Your task to perform on an android device: Open wifi settings Image 0: 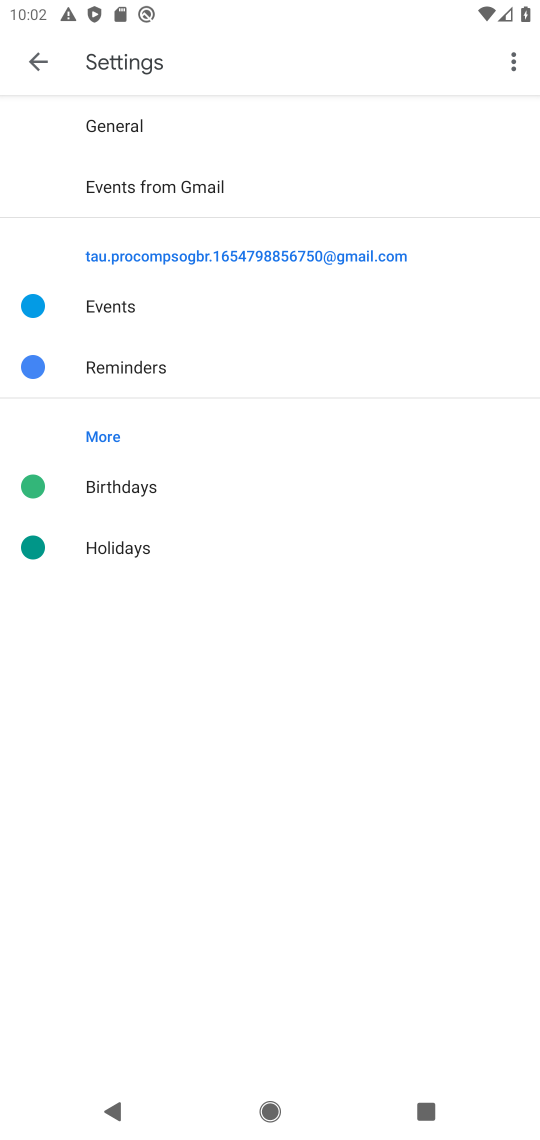
Step 0: press home button
Your task to perform on an android device: Open wifi settings Image 1: 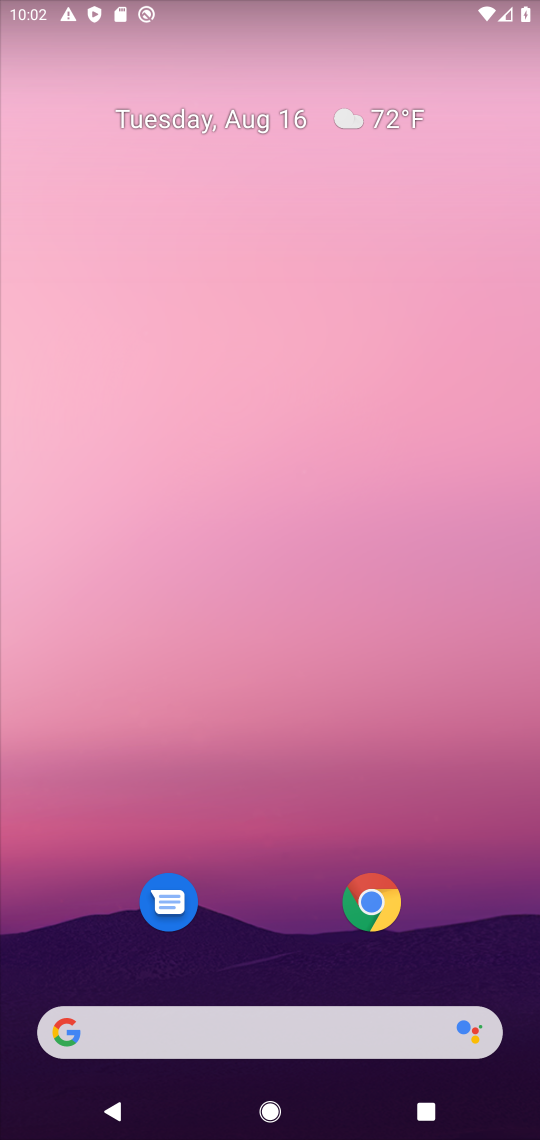
Step 1: drag from (171, 987) to (308, 685)
Your task to perform on an android device: Open wifi settings Image 2: 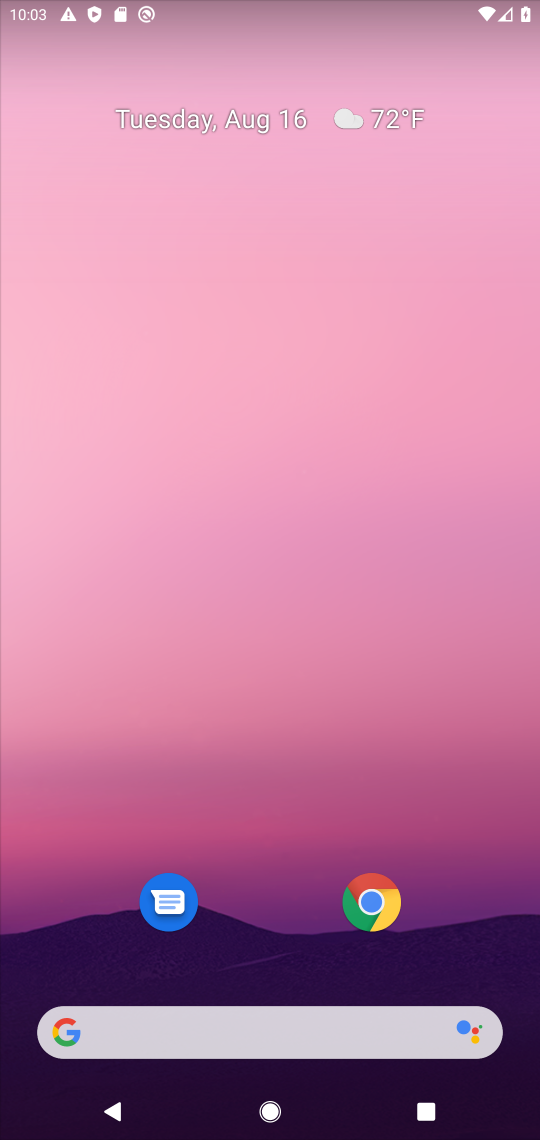
Step 2: drag from (309, 968) to (318, 142)
Your task to perform on an android device: Open wifi settings Image 3: 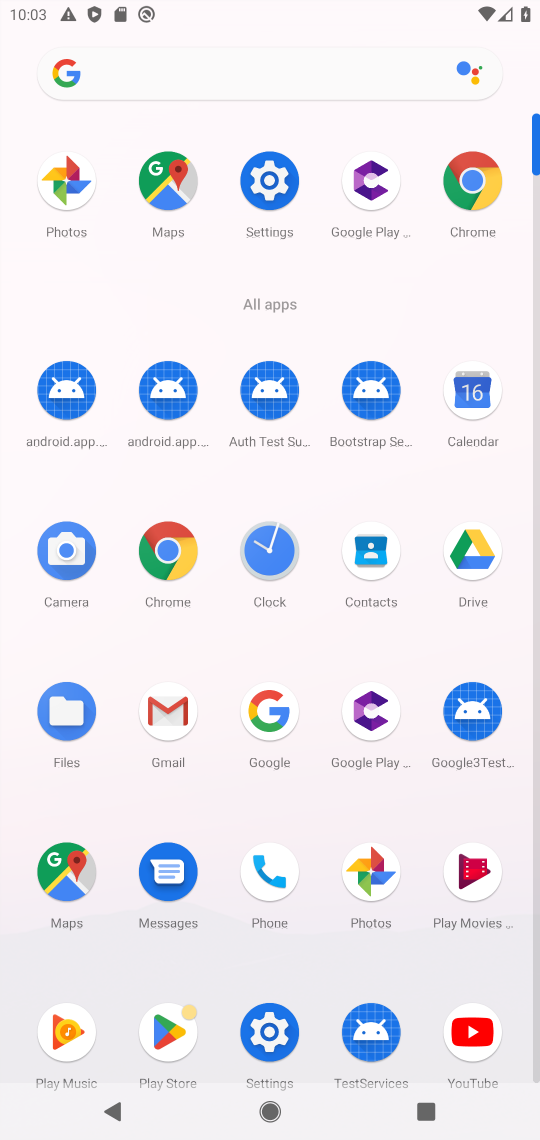
Step 3: click (255, 166)
Your task to perform on an android device: Open wifi settings Image 4: 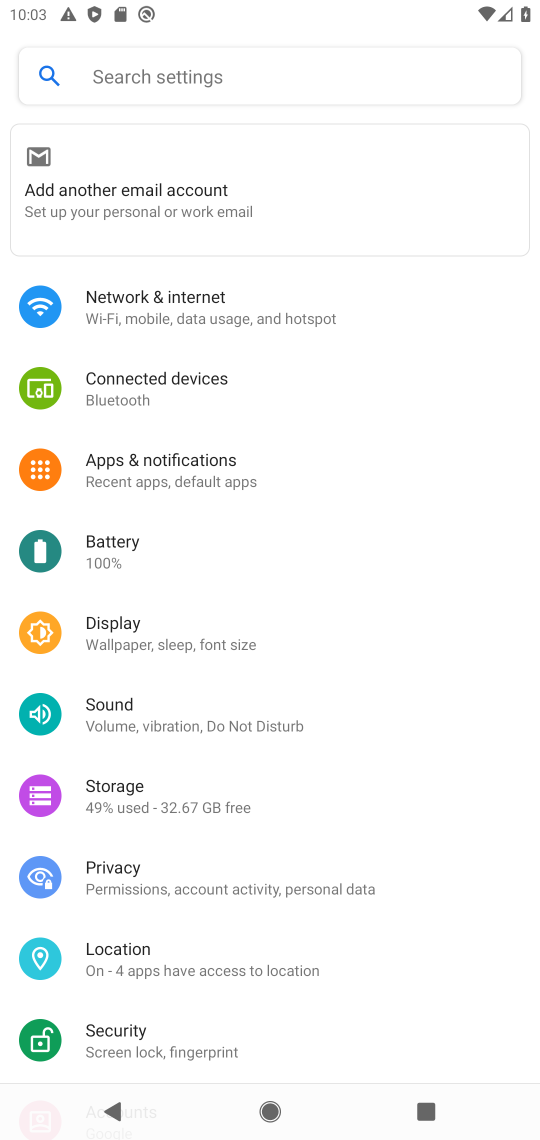
Step 4: click (136, 311)
Your task to perform on an android device: Open wifi settings Image 5: 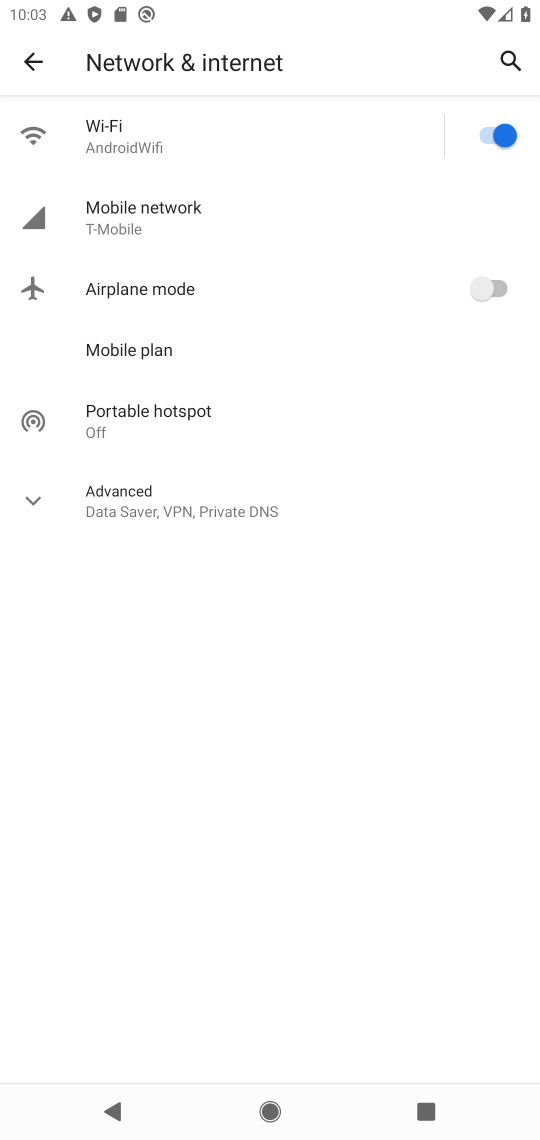
Step 5: click (88, 112)
Your task to perform on an android device: Open wifi settings Image 6: 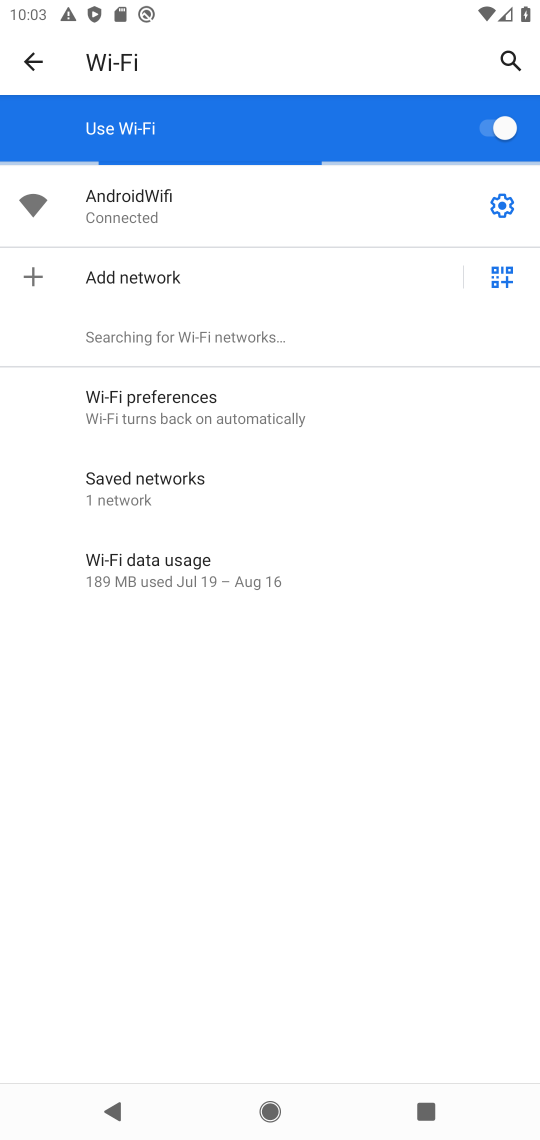
Step 6: click (496, 202)
Your task to perform on an android device: Open wifi settings Image 7: 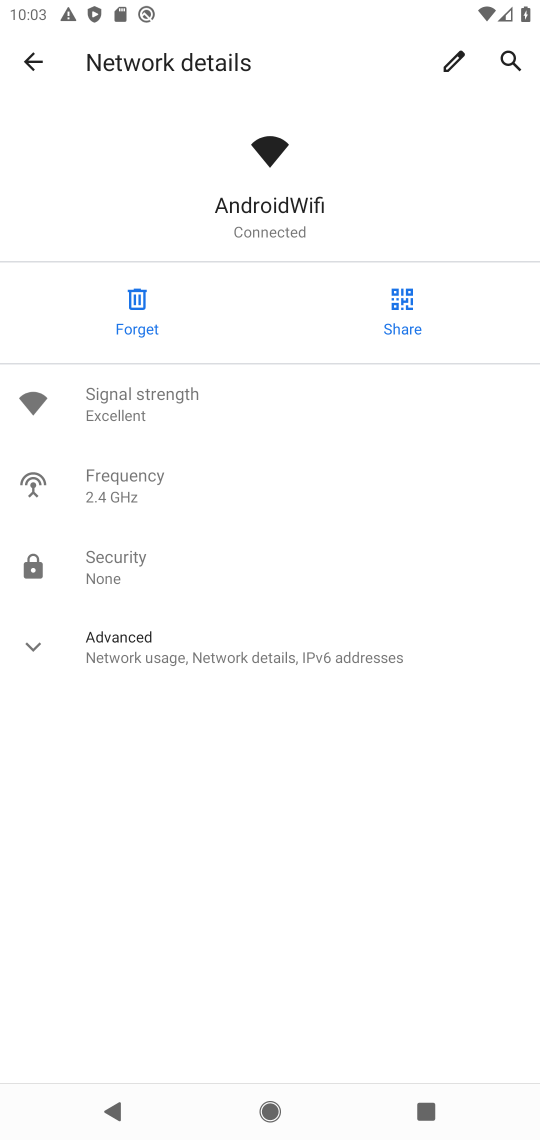
Step 7: click (123, 646)
Your task to perform on an android device: Open wifi settings Image 8: 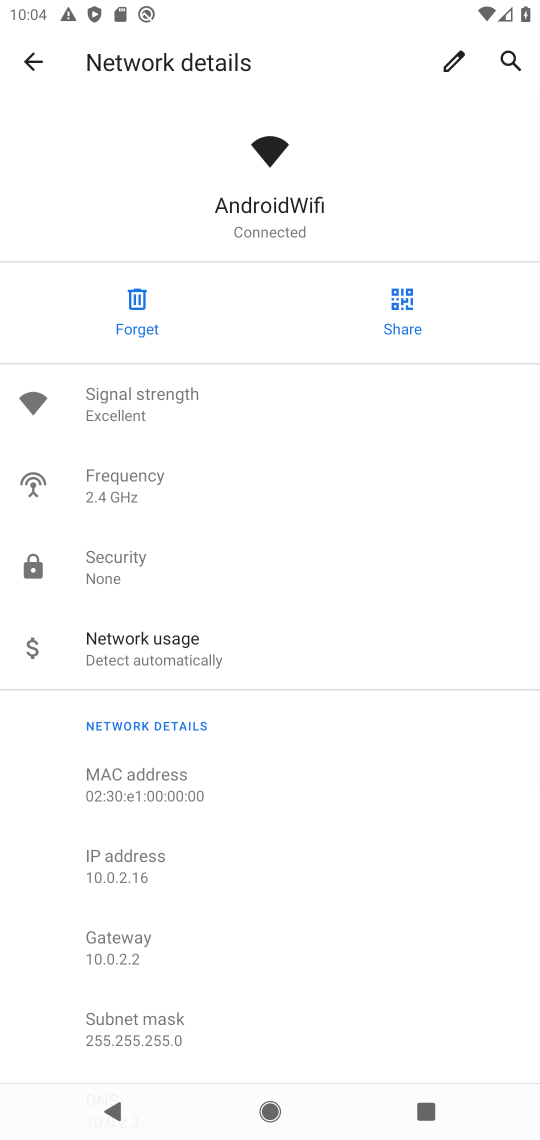
Step 8: task complete